Your task to perform on an android device: change timer sound Image 0: 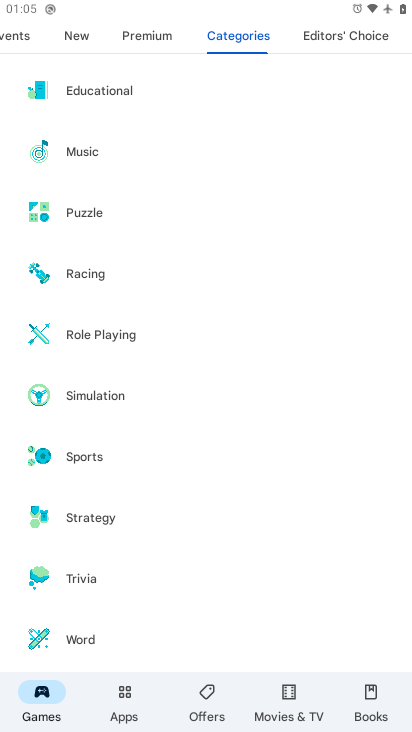
Step 0: press home button
Your task to perform on an android device: change timer sound Image 1: 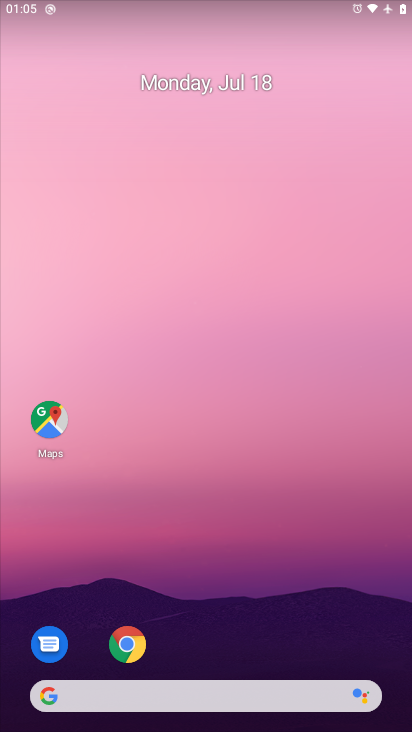
Step 1: drag from (227, 651) to (210, 12)
Your task to perform on an android device: change timer sound Image 2: 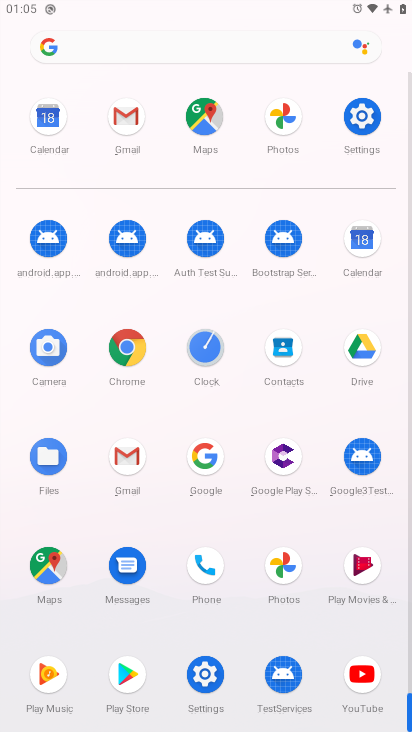
Step 2: click (210, 362)
Your task to perform on an android device: change timer sound Image 3: 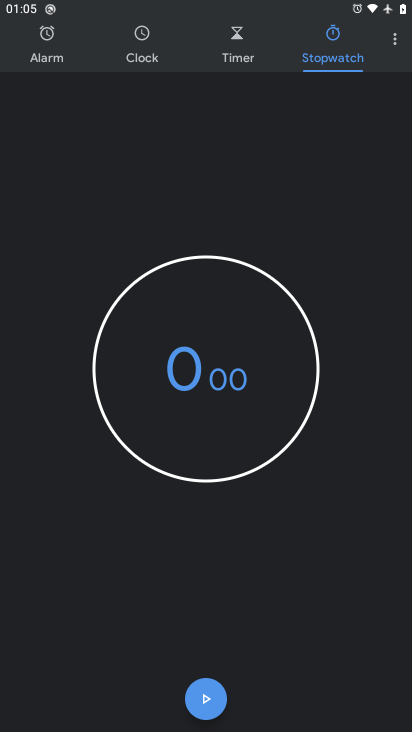
Step 3: click (404, 47)
Your task to perform on an android device: change timer sound Image 4: 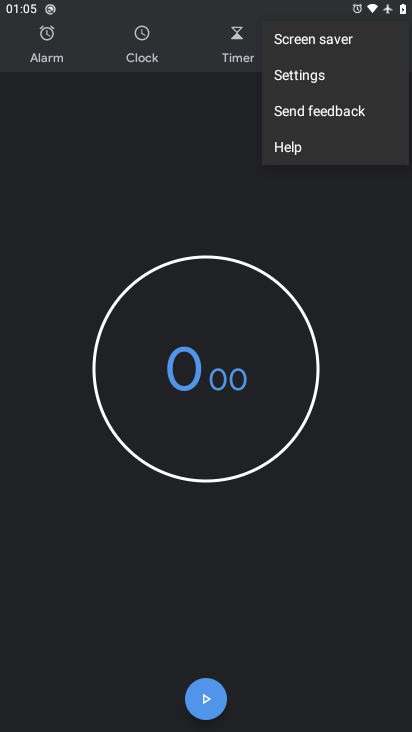
Step 4: click (288, 78)
Your task to perform on an android device: change timer sound Image 5: 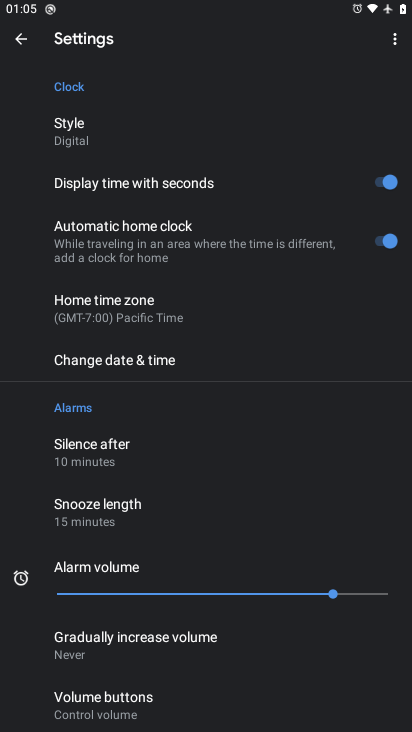
Step 5: drag from (251, 515) to (320, 67)
Your task to perform on an android device: change timer sound Image 6: 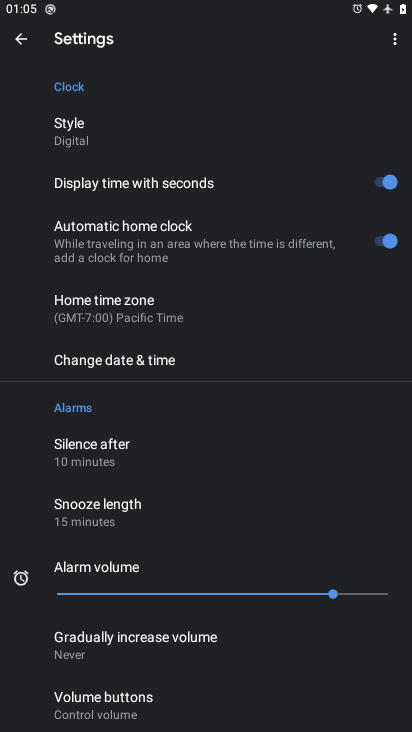
Step 6: drag from (223, 444) to (282, 44)
Your task to perform on an android device: change timer sound Image 7: 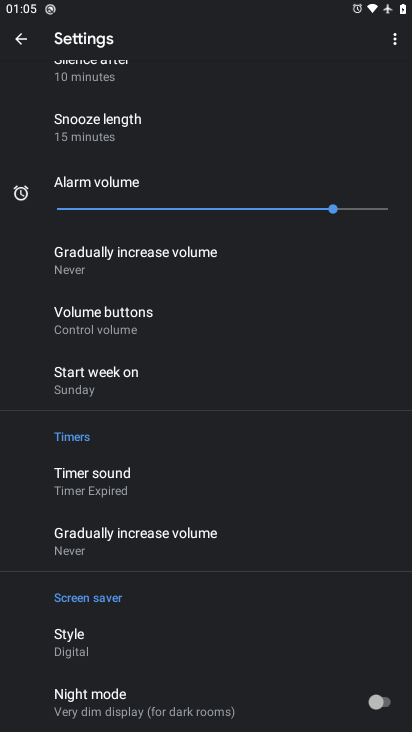
Step 7: click (99, 473)
Your task to perform on an android device: change timer sound Image 8: 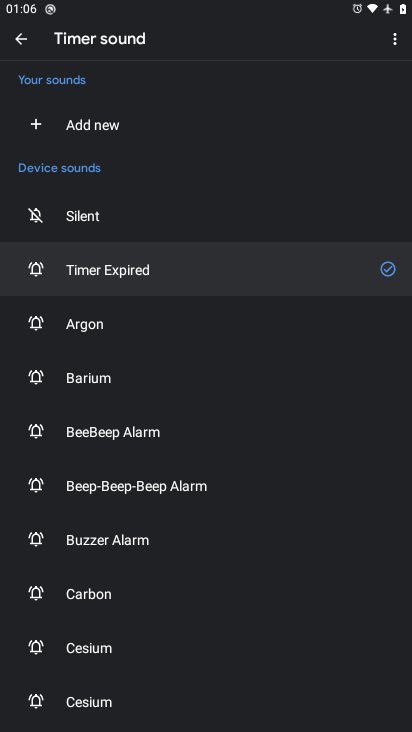
Step 8: click (97, 323)
Your task to perform on an android device: change timer sound Image 9: 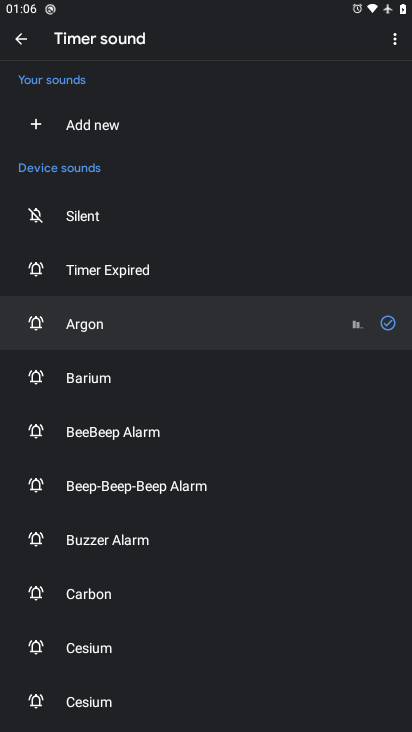
Step 9: task complete